Your task to perform on an android device: Set the phone to "Do not disturb". Image 0: 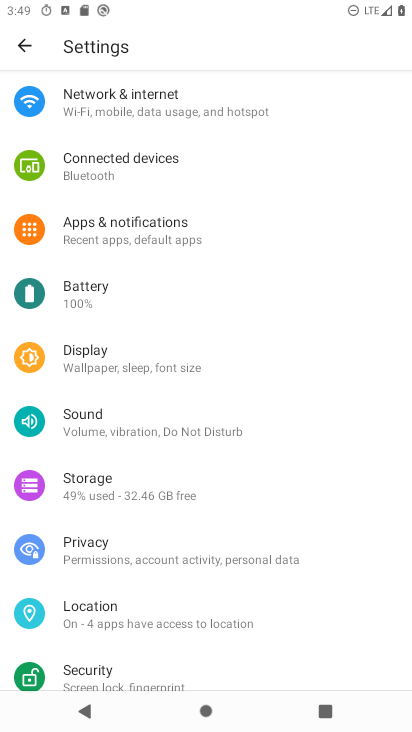
Step 0: click (119, 430)
Your task to perform on an android device: Set the phone to "Do not disturb". Image 1: 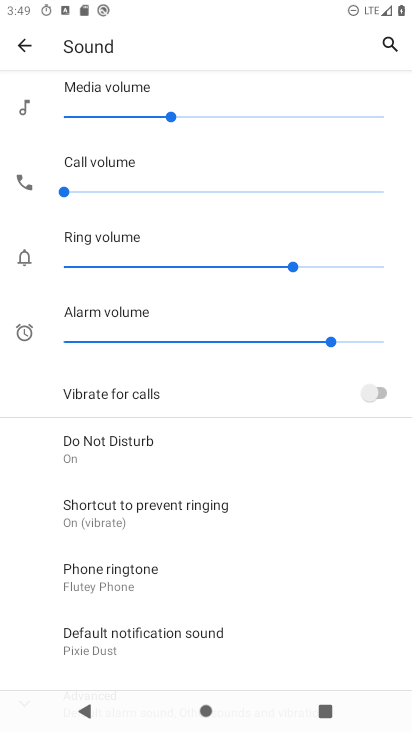
Step 1: click (142, 452)
Your task to perform on an android device: Set the phone to "Do not disturb". Image 2: 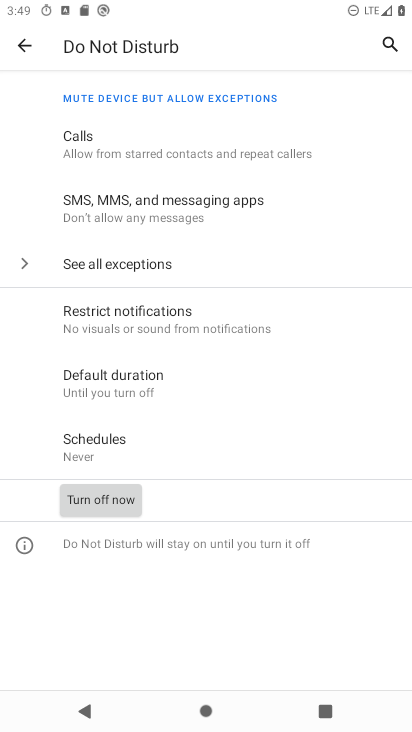
Step 2: task complete